Your task to perform on an android device: check data usage Image 0: 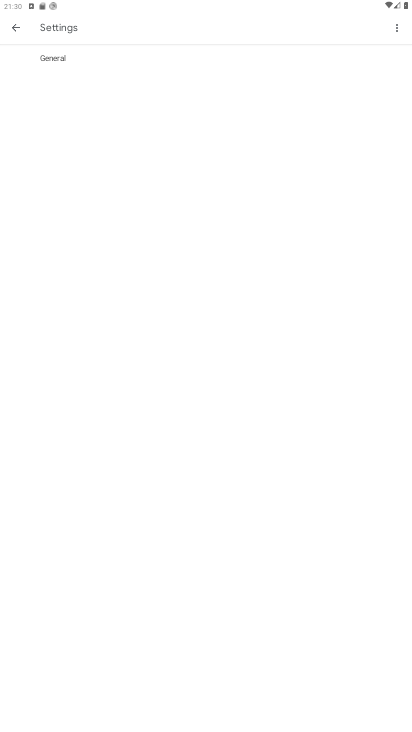
Step 0: press home button
Your task to perform on an android device: check data usage Image 1: 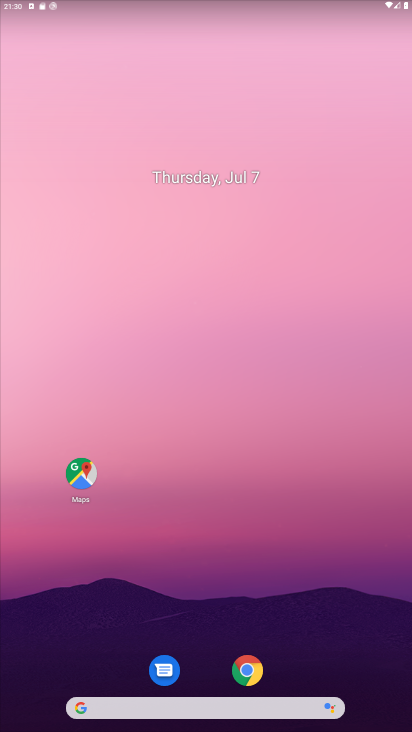
Step 1: drag from (0, 723) to (259, 189)
Your task to perform on an android device: check data usage Image 2: 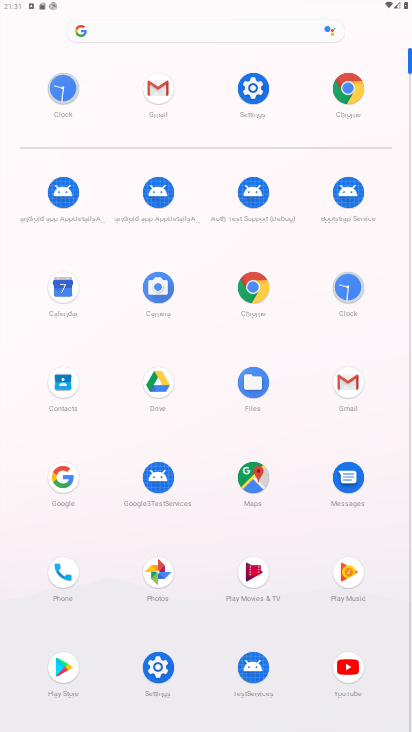
Step 2: click (145, 689)
Your task to perform on an android device: check data usage Image 3: 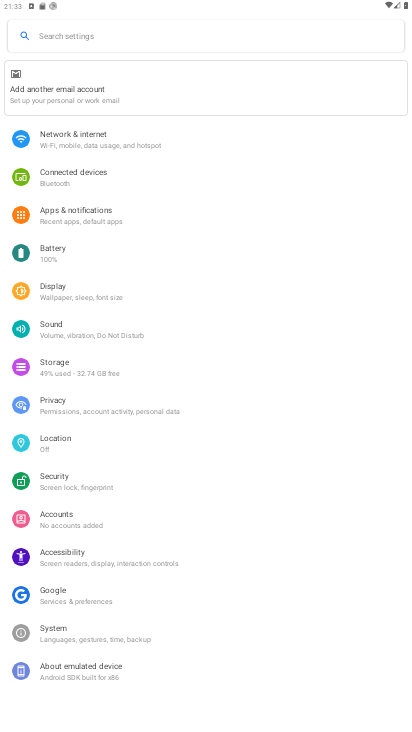
Step 3: click (128, 140)
Your task to perform on an android device: check data usage Image 4: 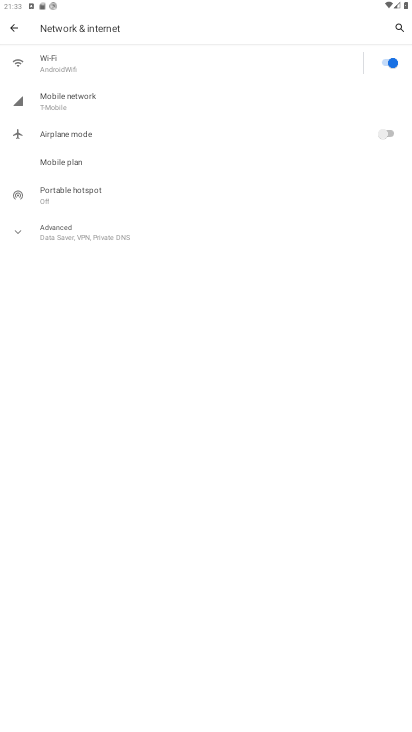
Step 4: click (133, 98)
Your task to perform on an android device: check data usage Image 5: 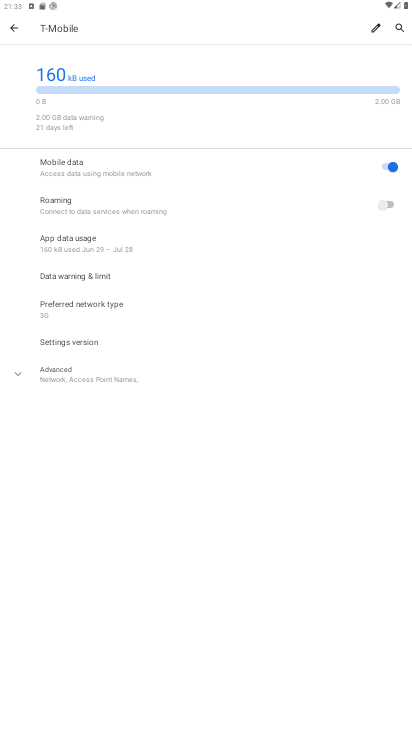
Step 5: task complete